Your task to perform on an android device: install app "Google Sheets" Image 0: 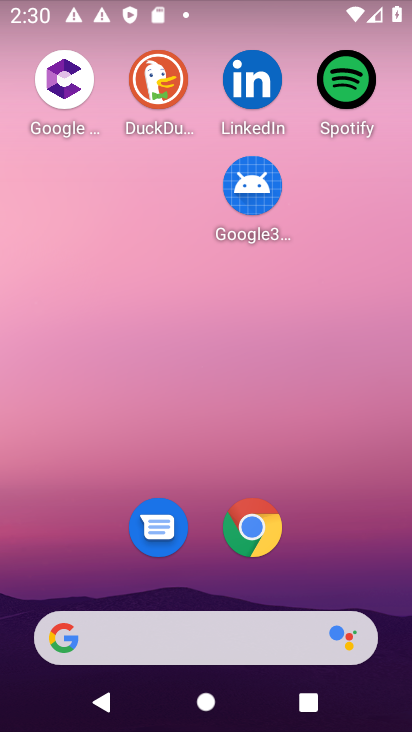
Step 0: drag from (315, 613) to (287, 53)
Your task to perform on an android device: install app "Google Sheets" Image 1: 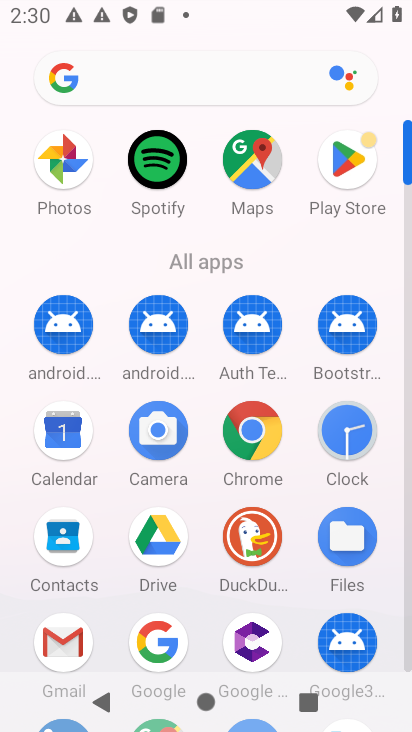
Step 1: click (347, 146)
Your task to perform on an android device: install app "Google Sheets" Image 2: 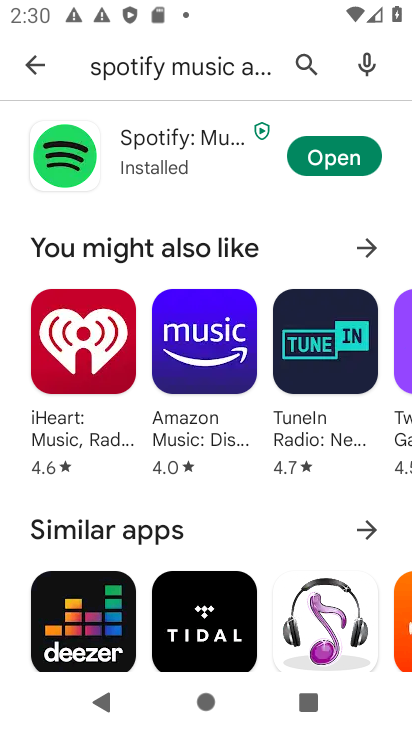
Step 2: click (302, 62)
Your task to perform on an android device: install app "Google Sheets" Image 3: 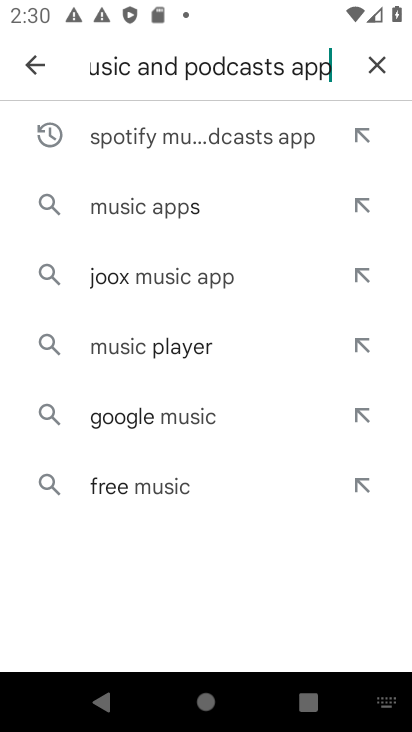
Step 3: click (385, 69)
Your task to perform on an android device: install app "Google Sheets" Image 4: 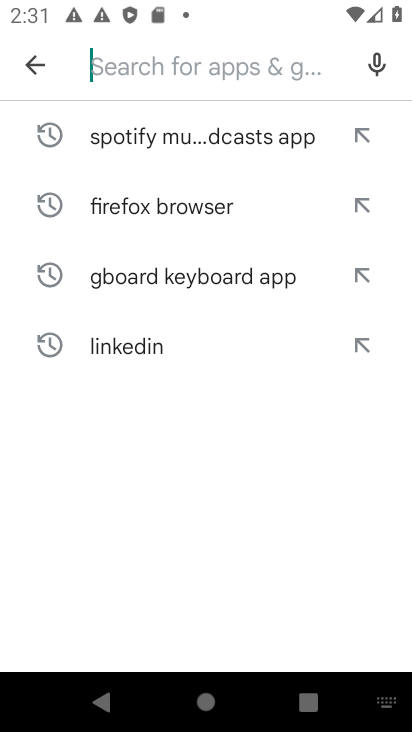
Step 4: type "Google sheets"
Your task to perform on an android device: install app "Google Sheets" Image 5: 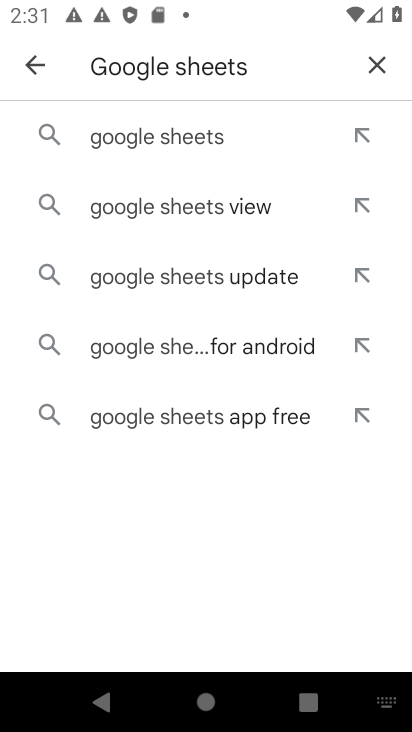
Step 5: click (210, 138)
Your task to perform on an android device: install app "Google Sheets" Image 6: 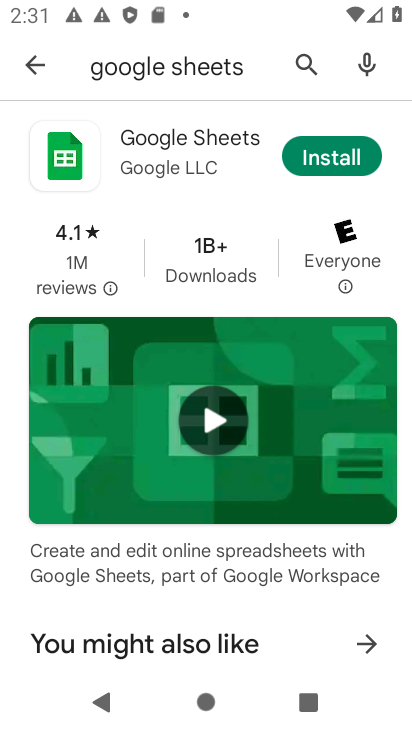
Step 6: click (336, 147)
Your task to perform on an android device: install app "Google Sheets" Image 7: 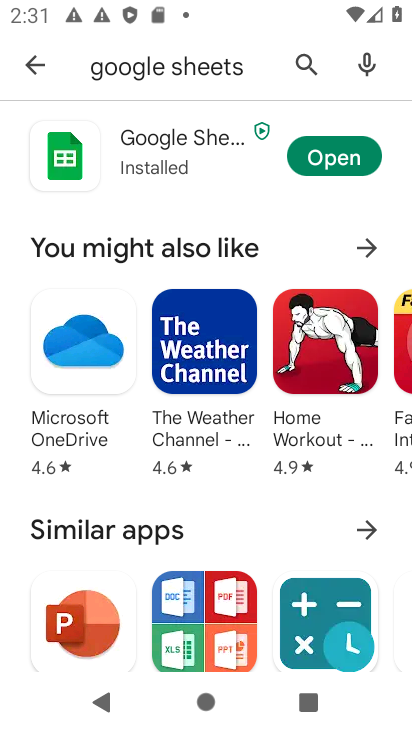
Step 7: task complete